Your task to perform on an android device: open app "Messenger Lite" (install if not already installed), go to login, and select forgot password Image 0: 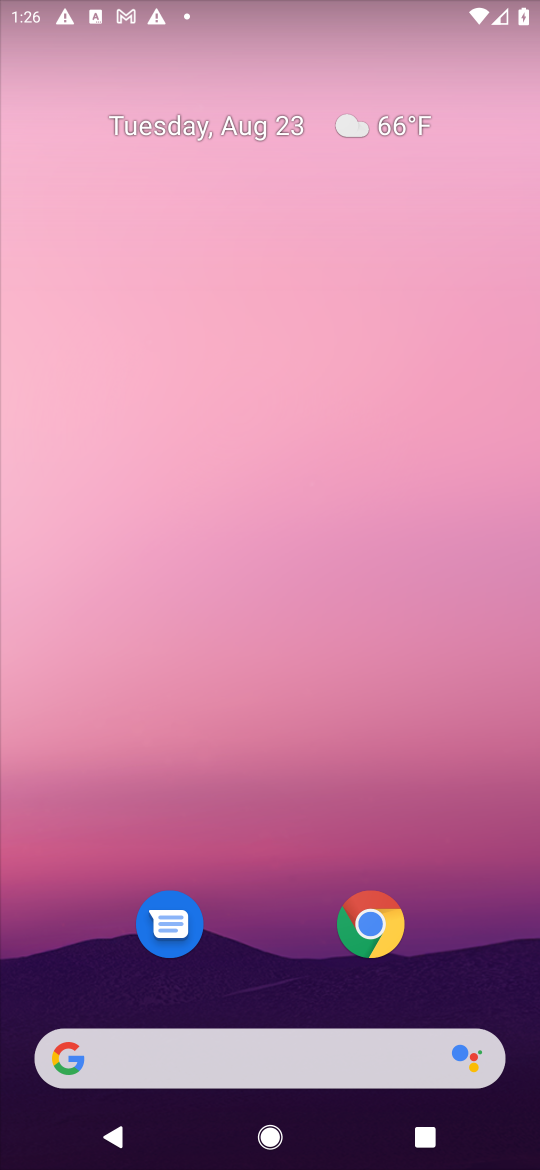
Step 0: press home button
Your task to perform on an android device: open app "Messenger Lite" (install if not already installed), go to login, and select forgot password Image 1: 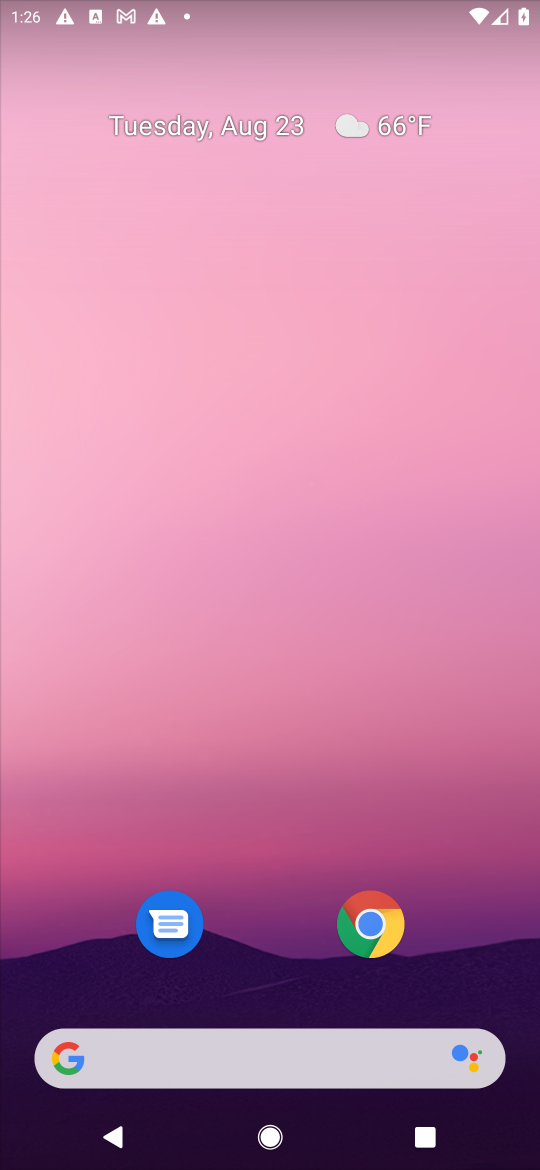
Step 1: drag from (483, 899) to (452, 134)
Your task to perform on an android device: open app "Messenger Lite" (install if not already installed), go to login, and select forgot password Image 2: 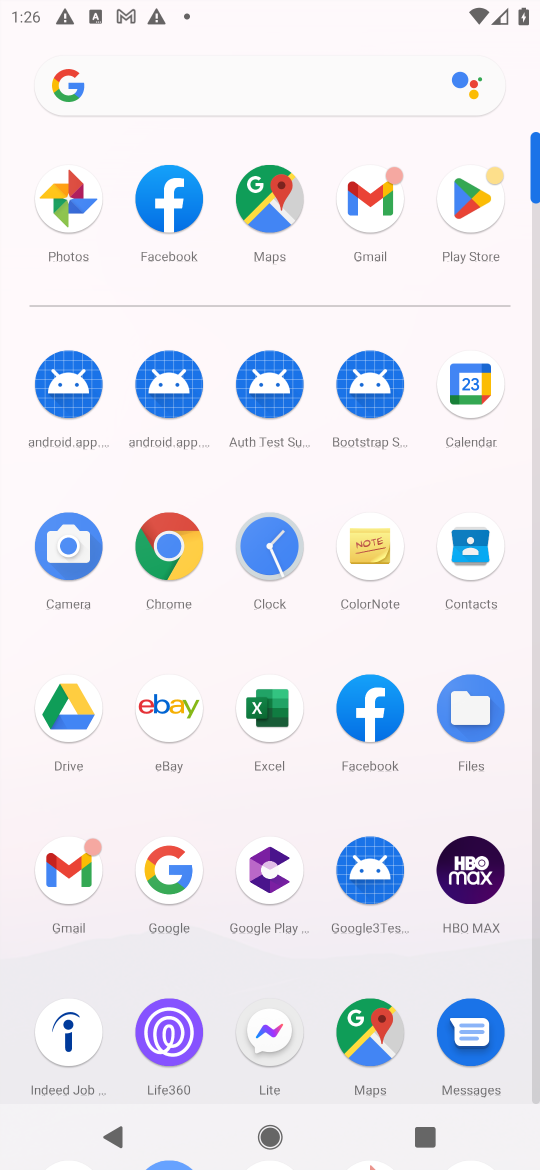
Step 2: click (461, 207)
Your task to perform on an android device: open app "Messenger Lite" (install if not already installed), go to login, and select forgot password Image 3: 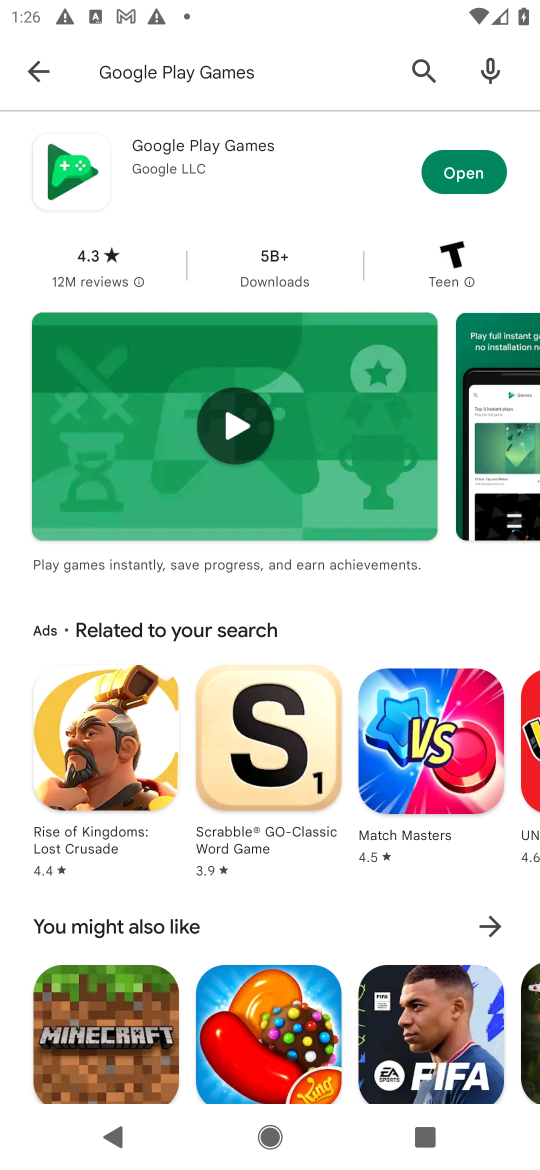
Step 3: press back button
Your task to perform on an android device: open app "Messenger Lite" (install if not already installed), go to login, and select forgot password Image 4: 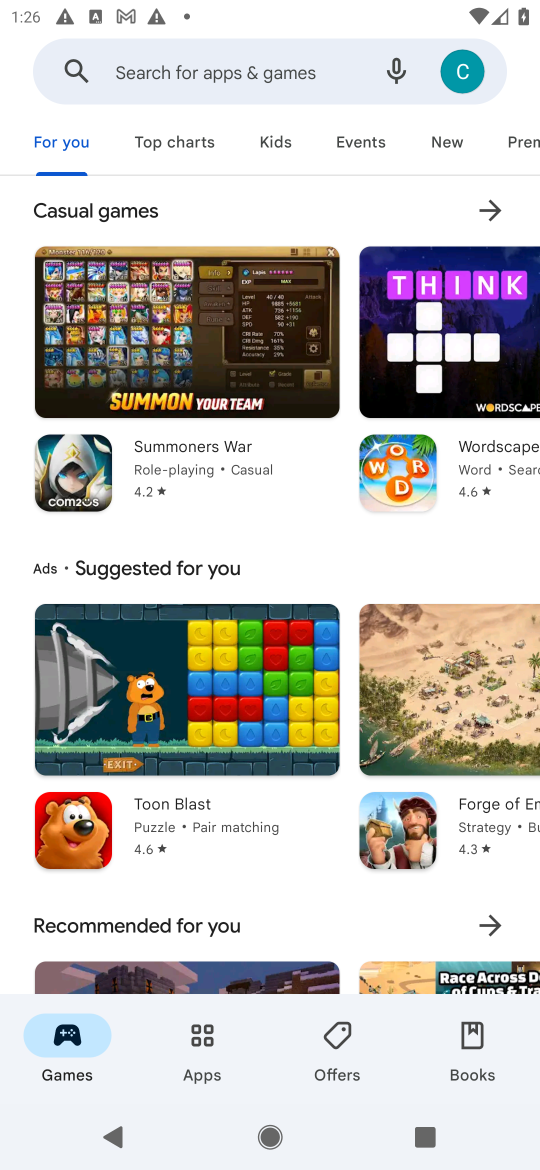
Step 4: click (224, 73)
Your task to perform on an android device: open app "Messenger Lite" (install if not already installed), go to login, and select forgot password Image 5: 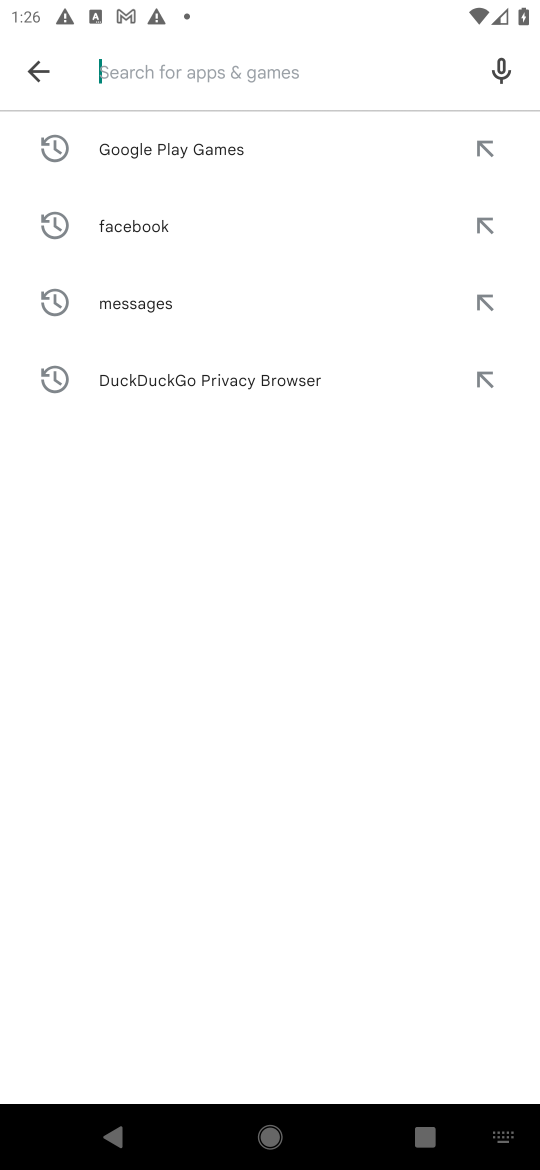
Step 5: type "Messenger Lite"
Your task to perform on an android device: open app "Messenger Lite" (install if not already installed), go to login, and select forgot password Image 6: 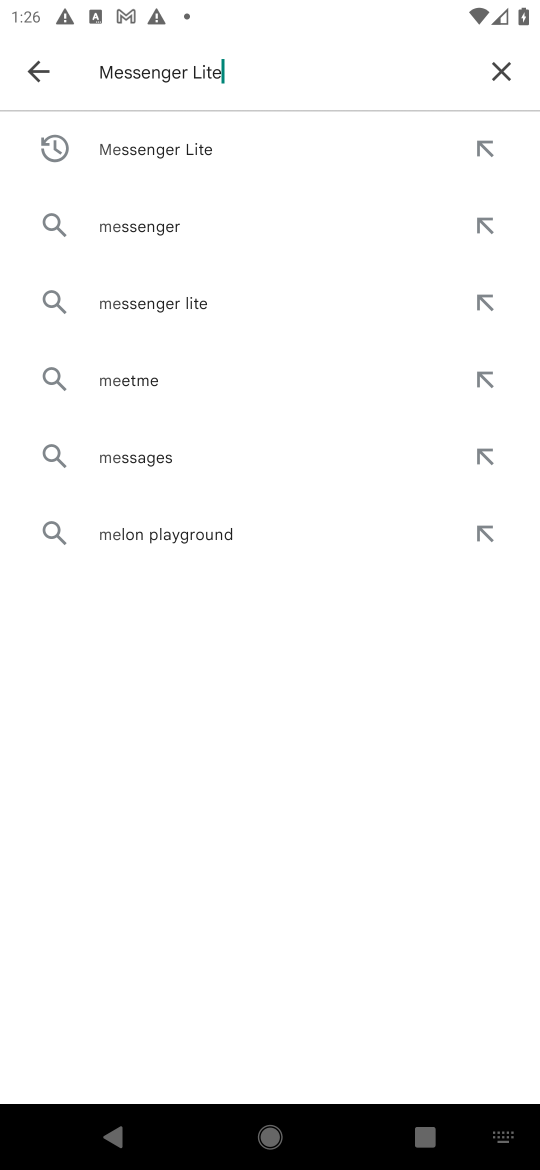
Step 6: press enter
Your task to perform on an android device: open app "Messenger Lite" (install if not already installed), go to login, and select forgot password Image 7: 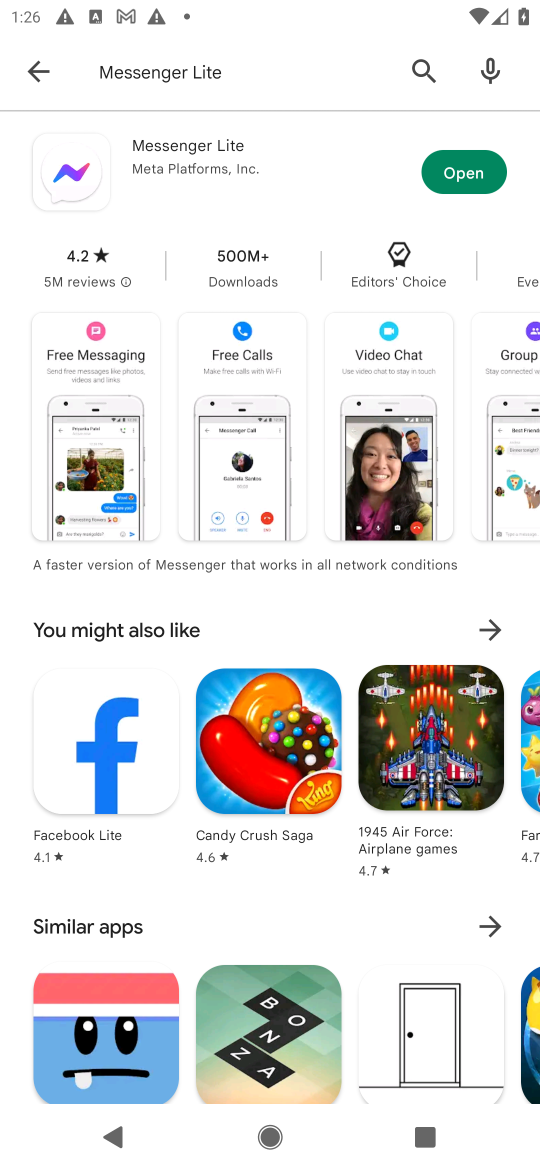
Step 7: click (454, 166)
Your task to perform on an android device: open app "Messenger Lite" (install if not already installed), go to login, and select forgot password Image 8: 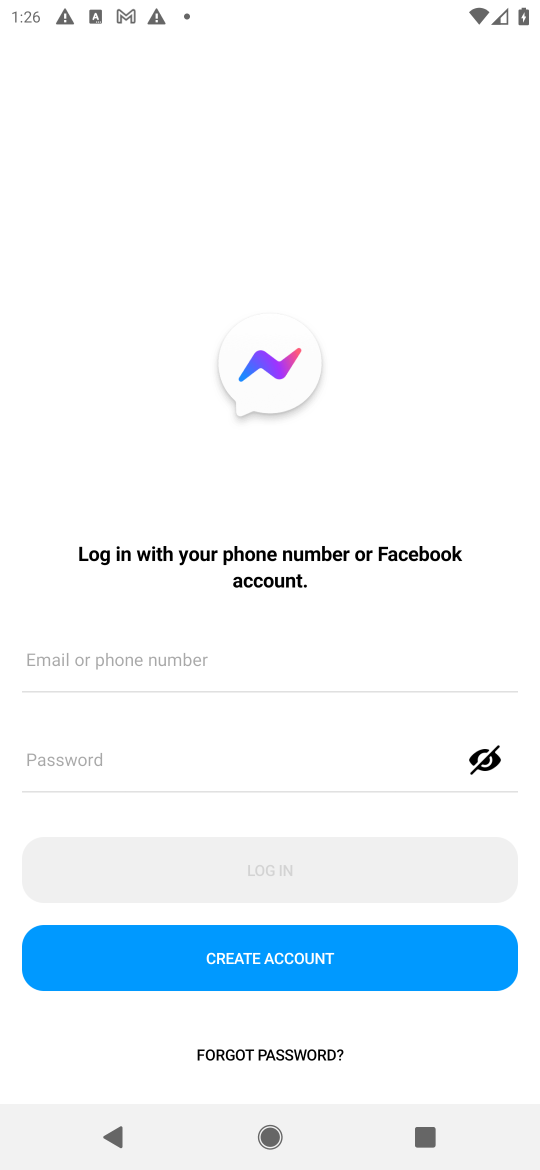
Step 8: click (269, 1058)
Your task to perform on an android device: open app "Messenger Lite" (install if not already installed), go to login, and select forgot password Image 9: 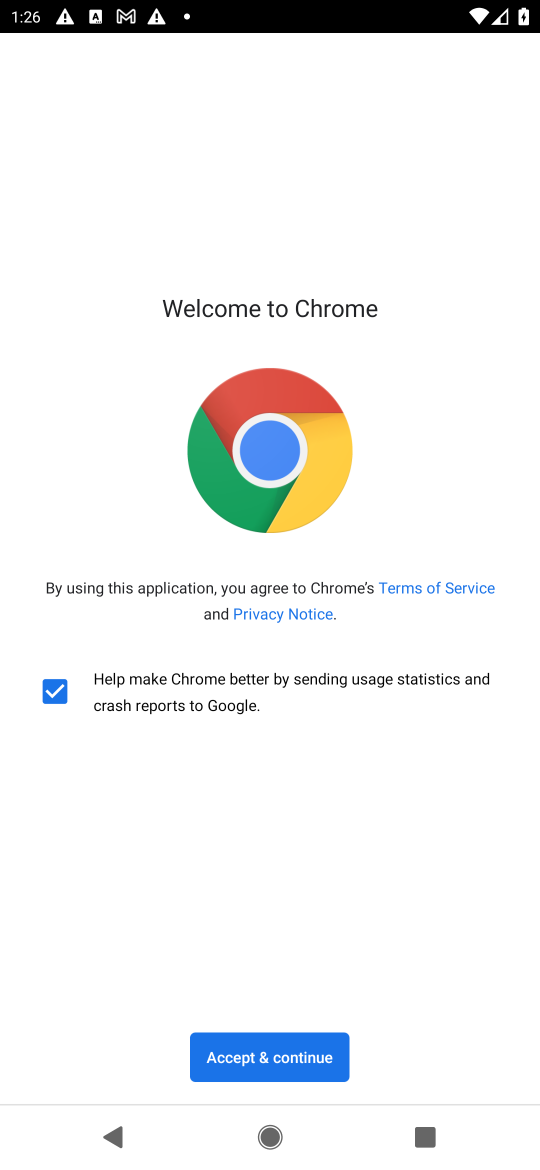
Step 9: task complete